Your task to perform on an android device: change text size in settings app Image 0: 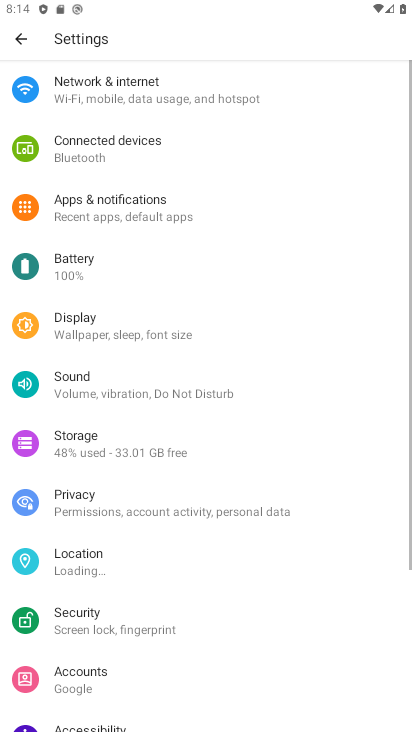
Step 0: press home button
Your task to perform on an android device: change text size in settings app Image 1: 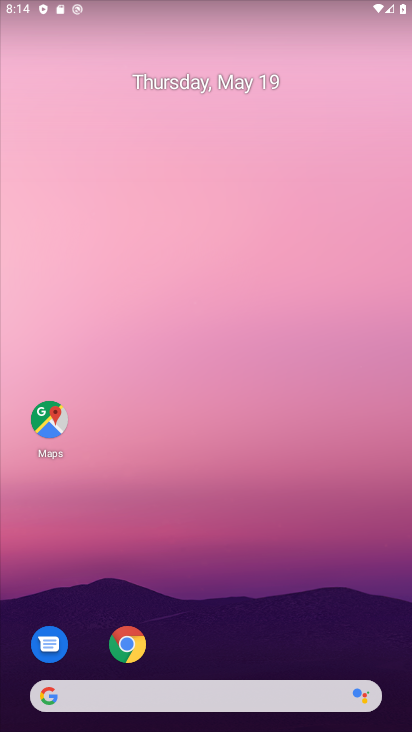
Step 1: drag from (377, 601) to (339, 184)
Your task to perform on an android device: change text size in settings app Image 2: 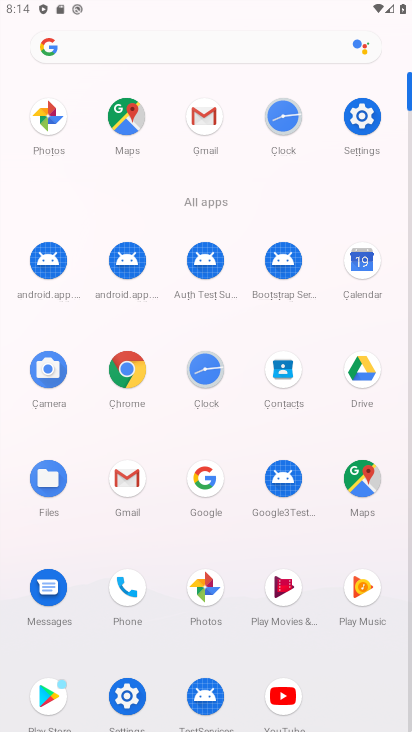
Step 2: click (120, 703)
Your task to perform on an android device: change text size in settings app Image 3: 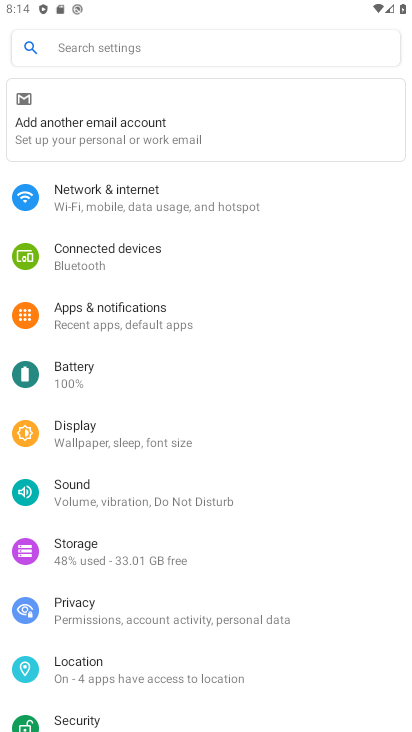
Step 3: drag from (310, 652) to (347, 376)
Your task to perform on an android device: change text size in settings app Image 4: 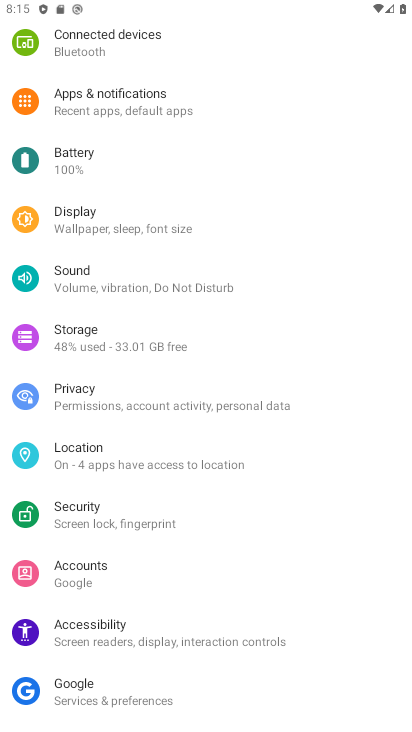
Step 4: click (79, 214)
Your task to perform on an android device: change text size in settings app Image 5: 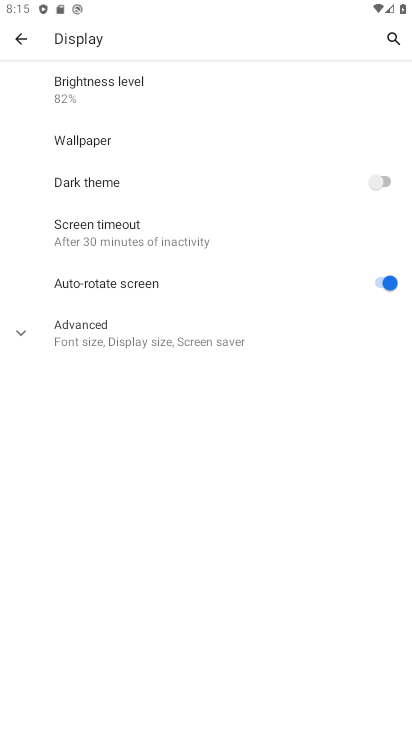
Step 5: click (101, 320)
Your task to perform on an android device: change text size in settings app Image 6: 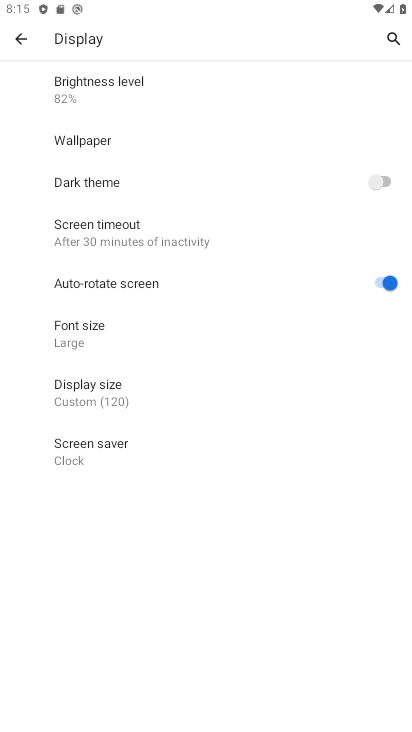
Step 6: click (92, 342)
Your task to perform on an android device: change text size in settings app Image 7: 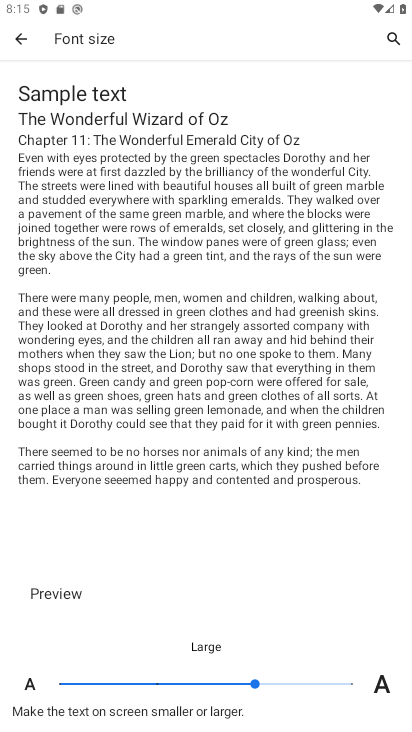
Step 7: click (31, 680)
Your task to perform on an android device: change text size in settings app Image 8: 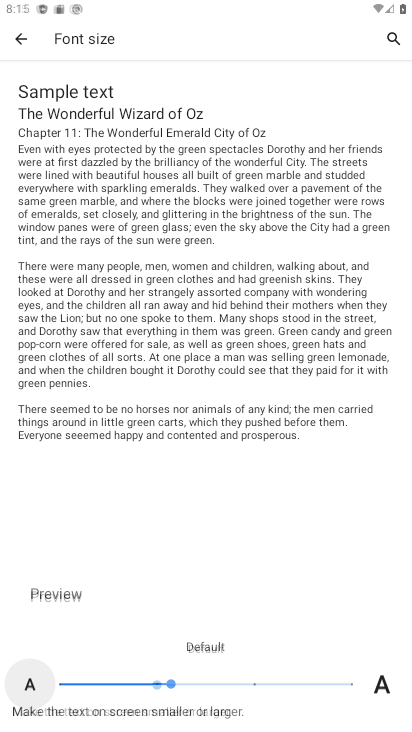
Step 8: click (34, 678)
Your task to perform on an android device: change text size in settings app Image 9: 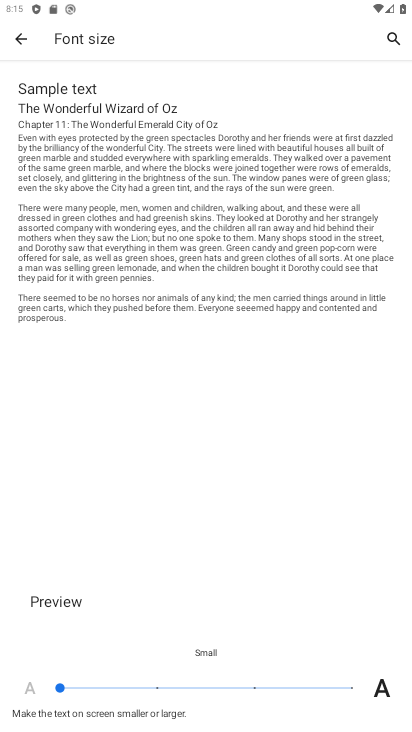
Step 9: task complete